Your task to perform on an android device: Open the phone app and click the voicemail tab. Image 0: 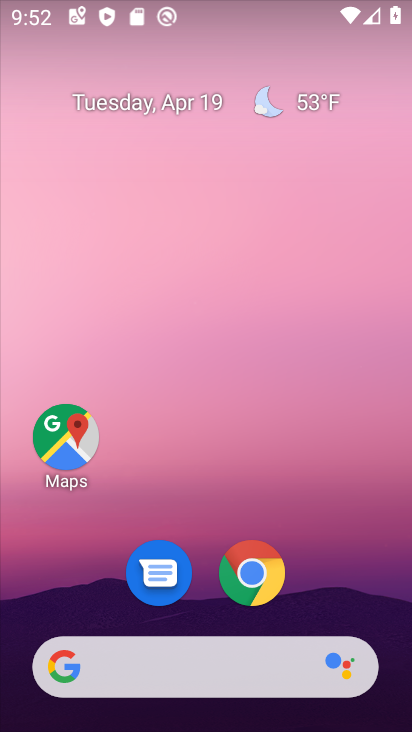
Step 0: drag from (201, 598) to (212, 130)
Your task to perform on an android device: Open the phone app and click the voicemail tab. Image 1: 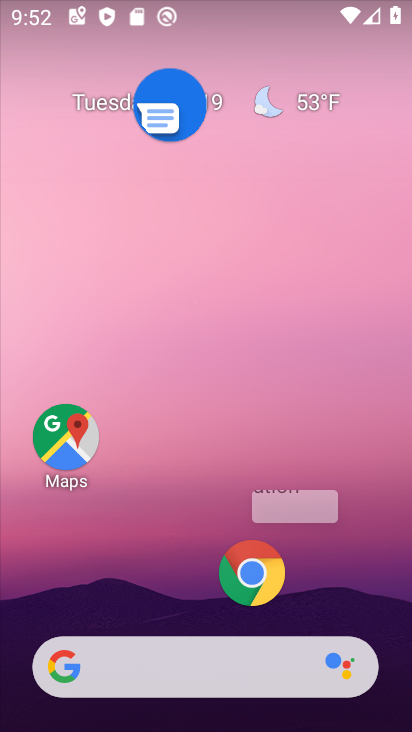
Step 1: click (260, 212)
Your task to perform on an android device: Open the phone app and click the voicemail tab. Image 2: 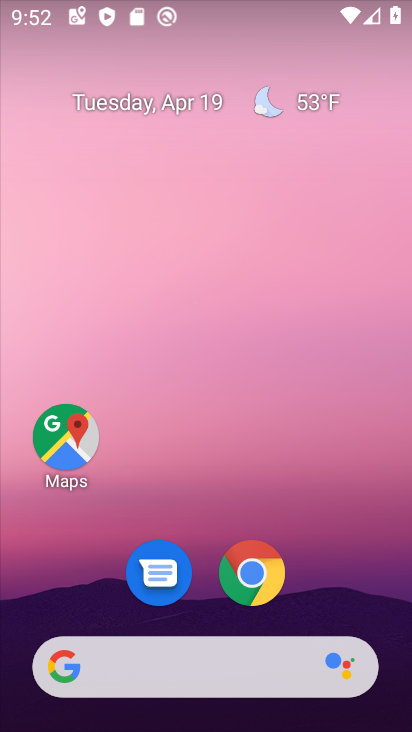
Step 2: drag from (217, 556) to (237, 32)
Your task to perform on an android device: Open the phone app and click the voicemail tab. Image 3: 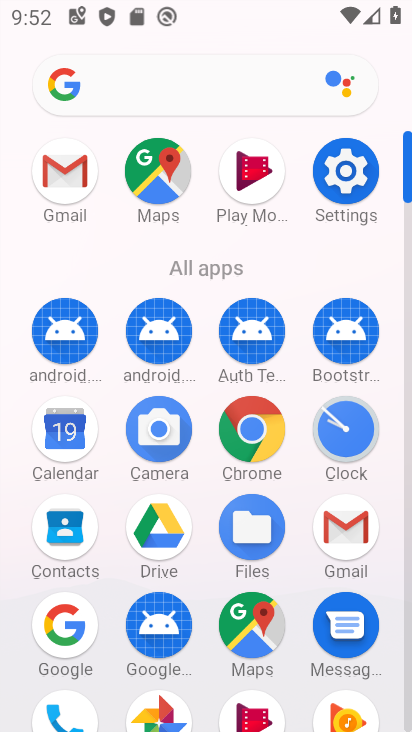
Step 3: click (57, 716)
Your task to perform on an android device: Open the phone app and click the voicemail tab. Image 4: 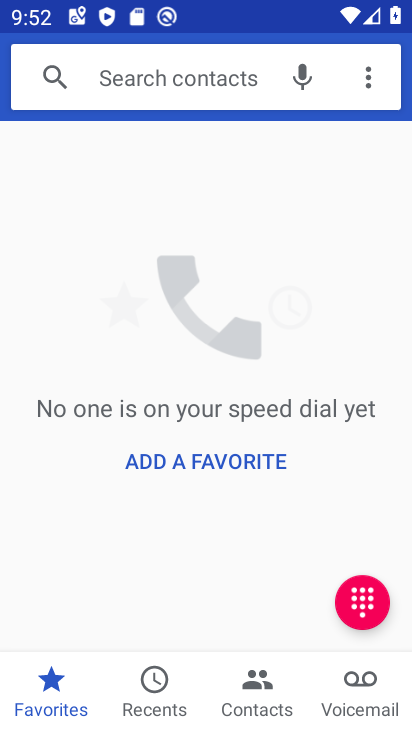
Step 4: click (368, 688)
Your task to perform on an android device: Open the phone app and click the voicemail tab. Image 5: 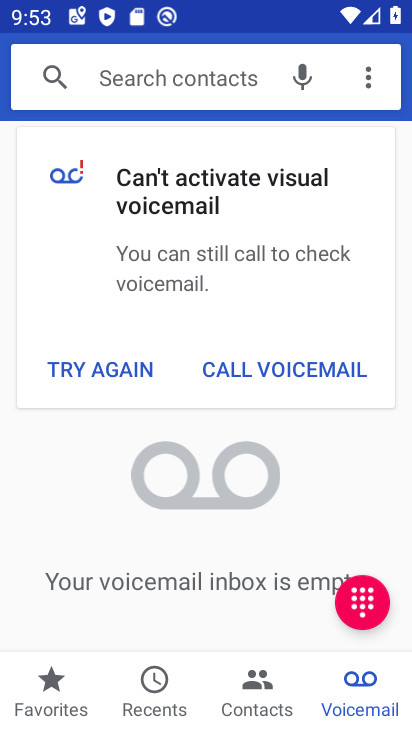
Step 5: task complete